Your task to perform on an android device: snooze an email in the gmail app Image 0: 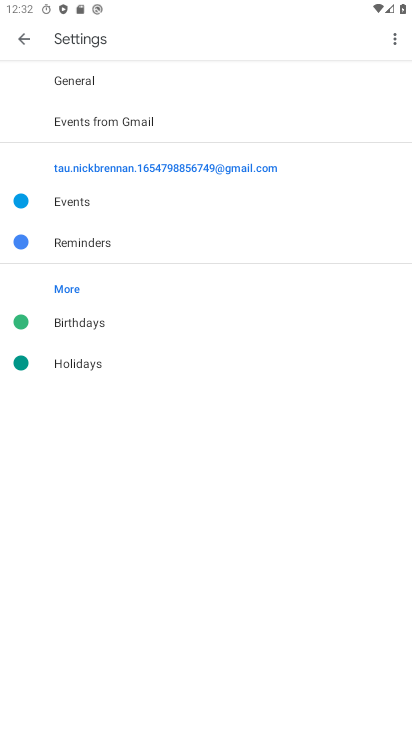
Step 0: press home button
Your task to perform on an android device: snooze an email in the gmail app Image 1: 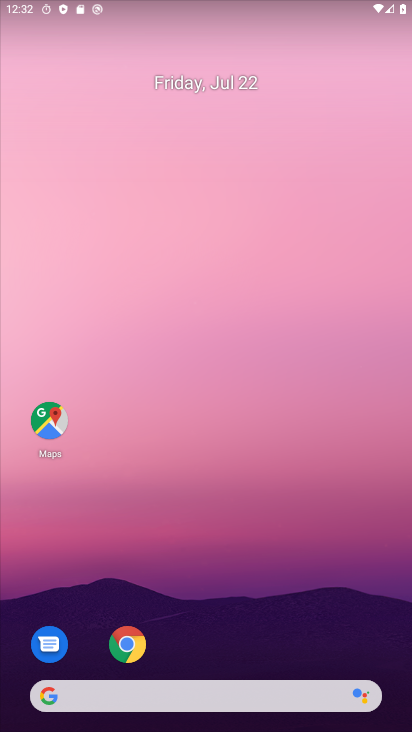
Step 1: drag from (289, 645) to (262, 5)
Your task to perform on an android device: snooze an email in the gmail app Image 2: 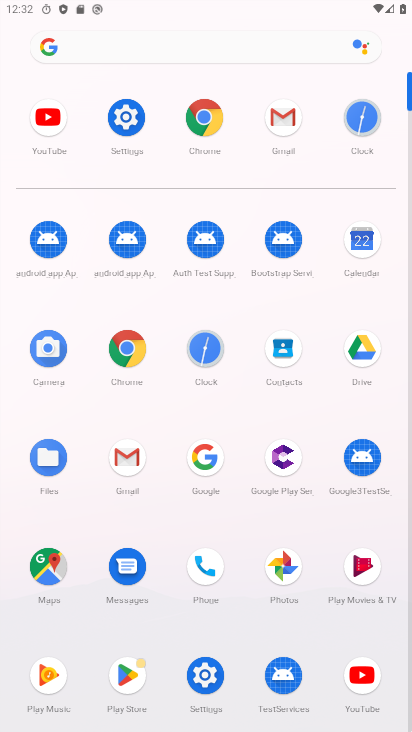
Step 2: click (130, 480)
Your task to perform on an android device: snooze an email in the gmail app Image 3: 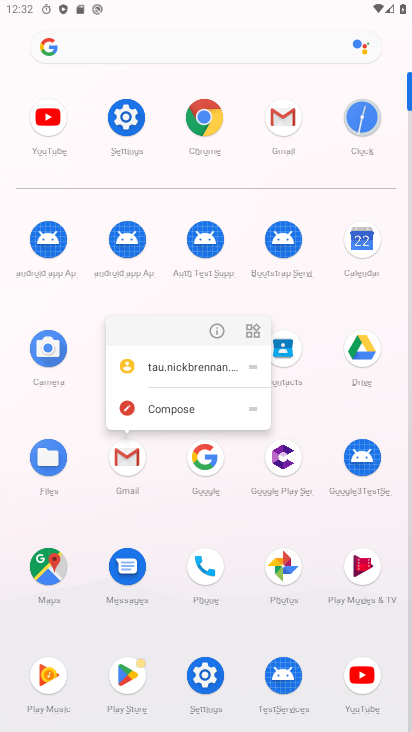
Step 3: click (132, 485)
Your task to perform on an android device: snooze an email in the gmail app Image 4: 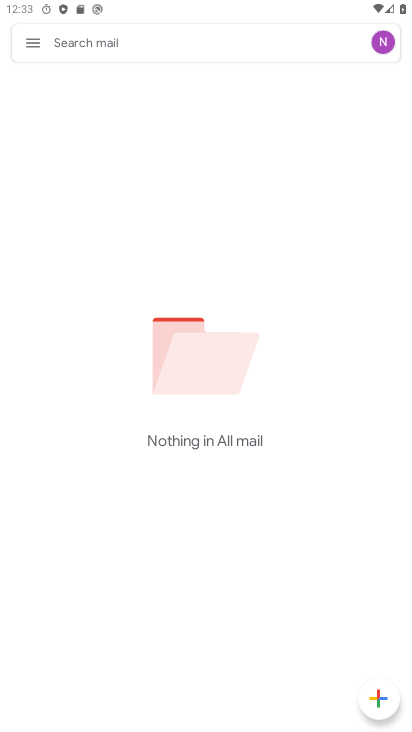
Step 4: task complete